Your task to perform on an android device: clear all cookies in the chrome app Image 0: 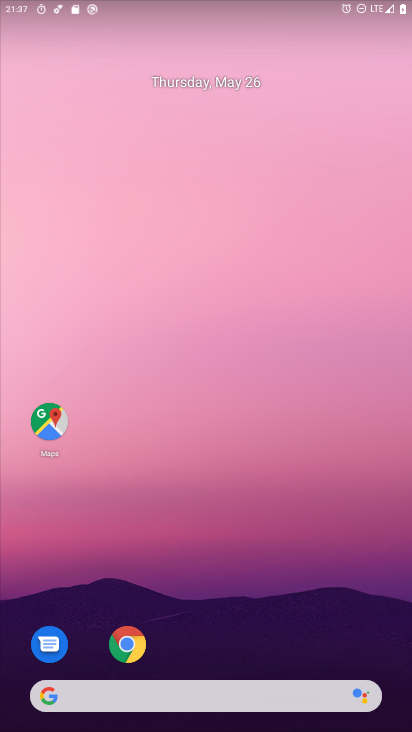
Step 0: drag from (189, 598) to (235, 142)
Your task to perform on an android device: clear all cookies in the chrome app Image 1: 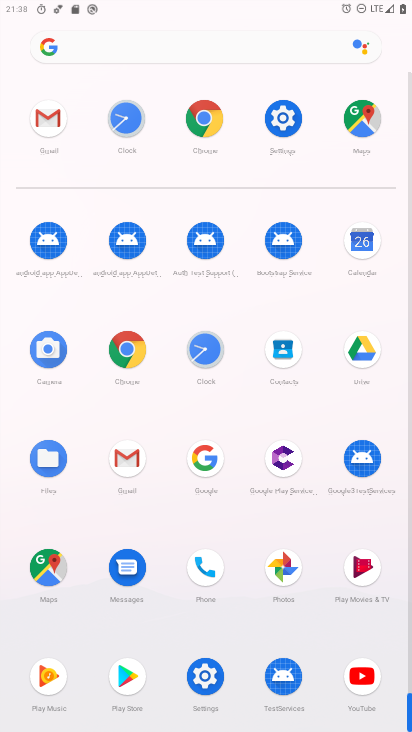
Step 1: click (127, 346)
Your task to perform on an android device: clear all cookies in the chrome app Image 2: 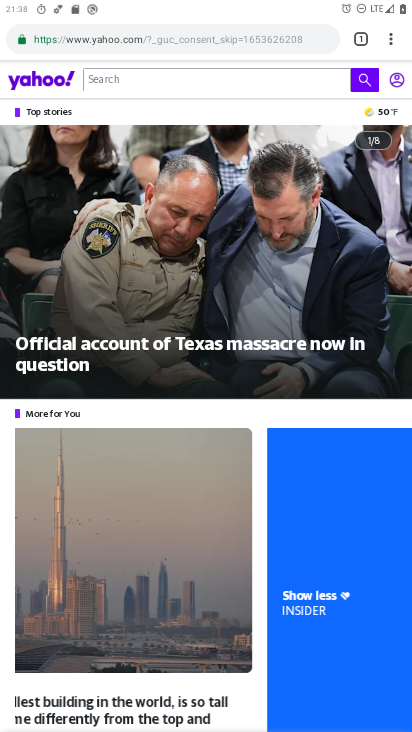
Step 2: drag from (385, 37) to (294, 423)
Your task to perform on an android device: clear all cookies in the chrome app Image 3: 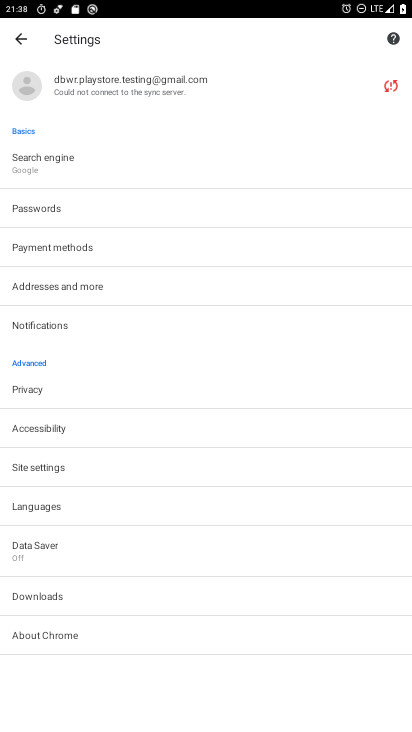
Step 3: click (21, 30)
Your task to perform on an android device: clear all cookies in the chrome app Image 4: 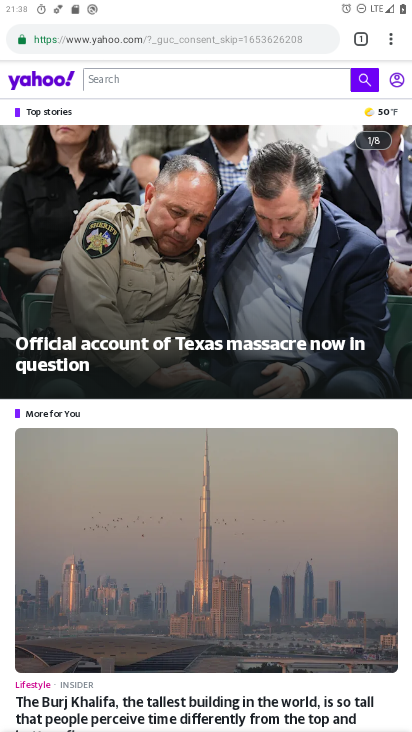
Step 4: drag from (388, 39) to (260, 226)
Your task to perform on an android device: clear all cookies in the chrome app Image 5: 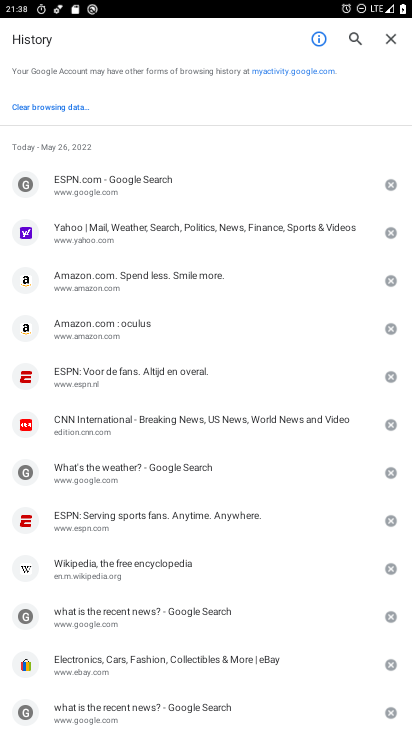
Step 5: drag from (187, 575) to (243, 207)
Your task to perform on an android device: clear all cookies in the chrome app Image 6: 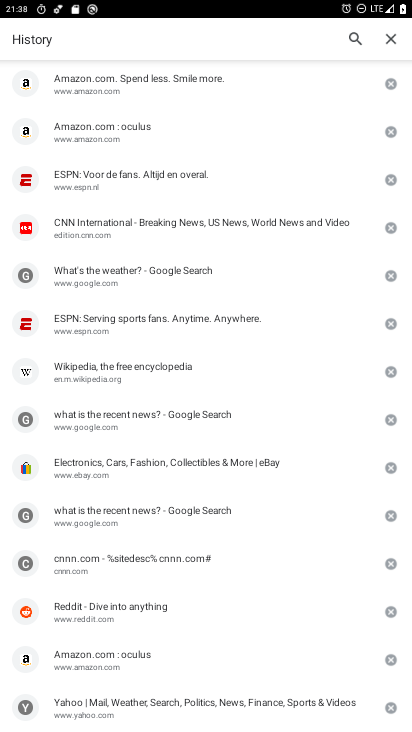
Step 6: drag from (261, 167) to (248, 720)
Your task to perform on an android device: clear all cookies in the chrome app Image 7: 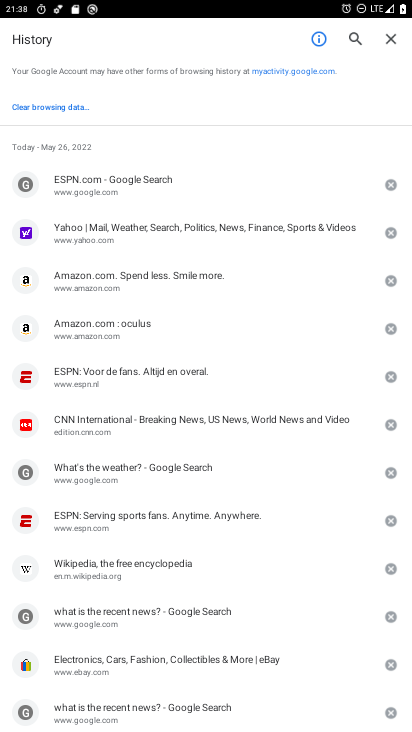
Step 7: click (52, 108)
Your task to perform on an android device: clear all cookies in the chrome app Image 8: 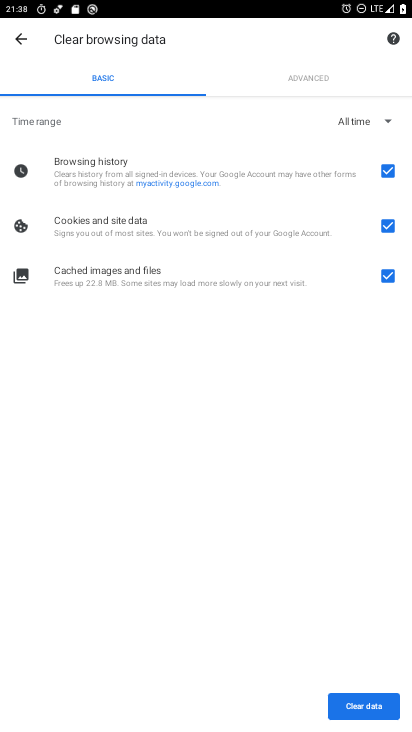
Step 8: click (372, 709)
Your task to perform on an android device: clear all cookies in the chrome app Image 9: 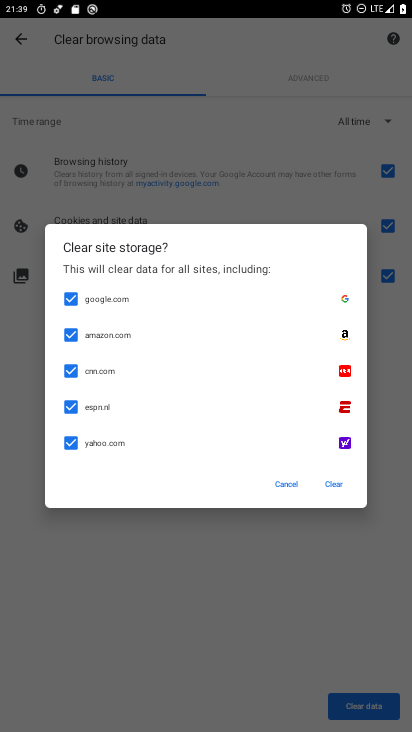
Step 9: click (351, 490)
Your task to perform on an android device: clear all cookies in the chrome app Image 10: 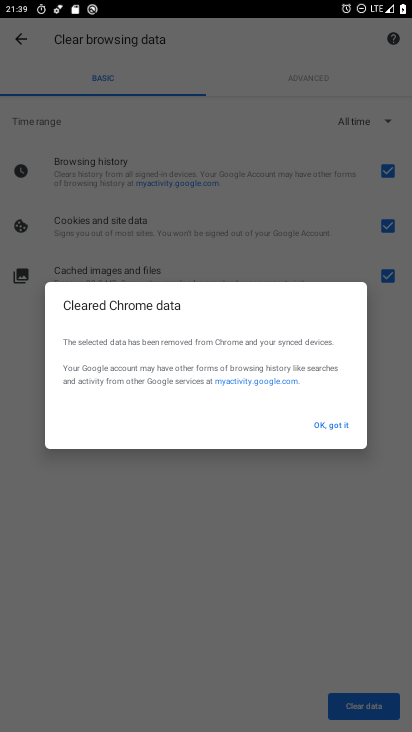
Step 10: task complete